Your task to perform on an android device: change timer sound Image 0: 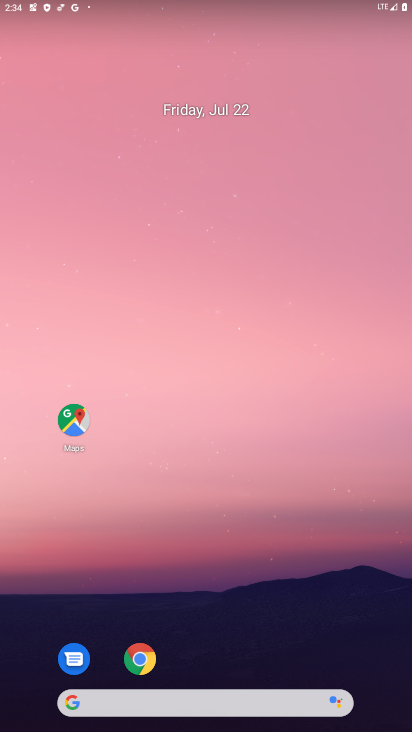
Step 0: drag from (180, 440) to (122, 121)
Your task to perform on an android device: change timer sound Image 1: 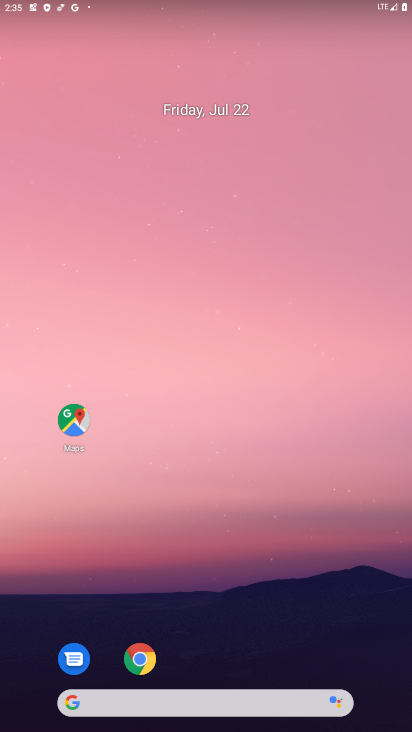
Step 1: drag from (209, 535) to (182, 79)
Your task to perform on an android device: change timer sound Image 2: 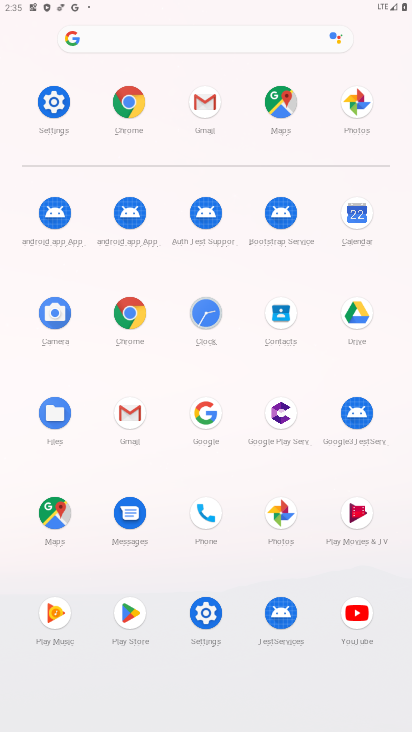
Step 2: click (198, 311)
Your task to perform on an android device: change timer sound Image 3: 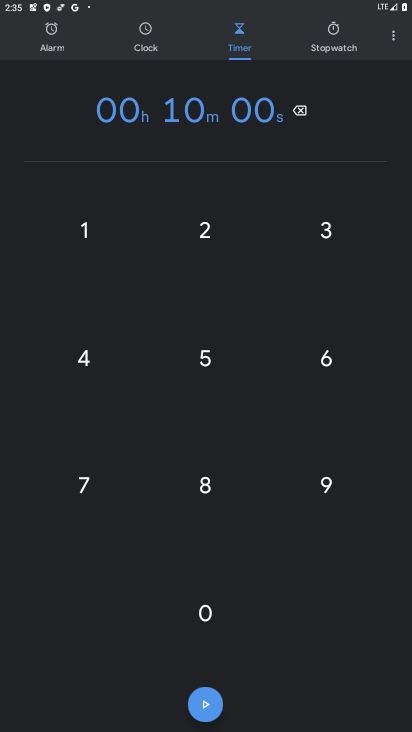
Step 3: click (400, 31)
Your task to perform on an android device: change timer sound Image 4: 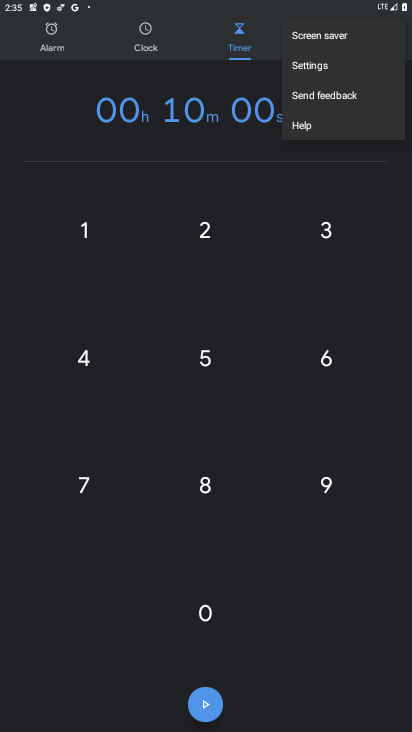
Step 4: click (309, 72)
Your task to perform on an android device: change timer sound Image 5: 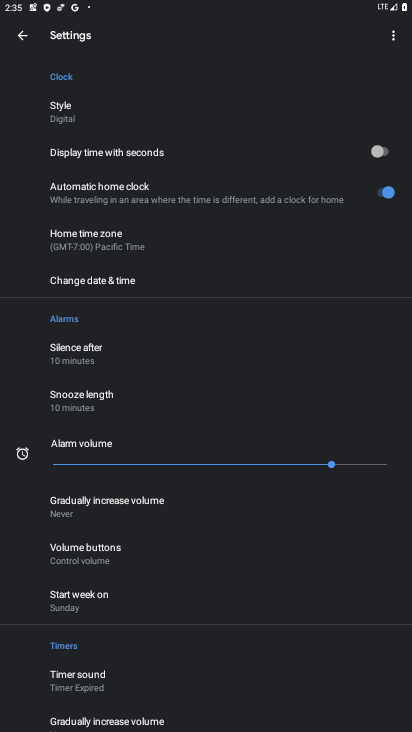
Step 5: drag from (92, 323) to (110, 456)
Your task to perform on an android device: change timer sound Image 6: 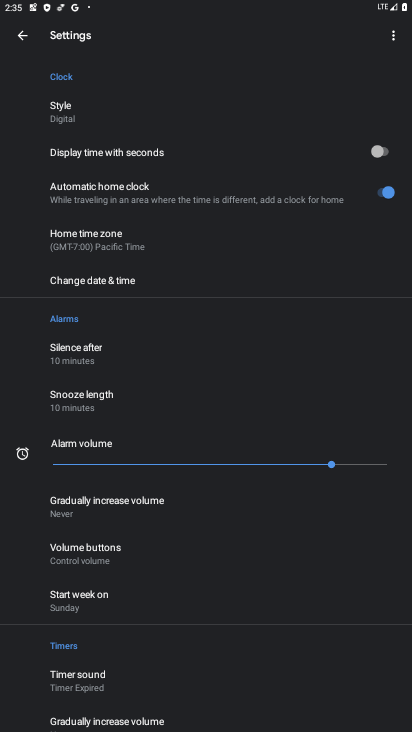
Step 6: click (72, 688)
Your task to perform on an android device: change timer sound Image 7: 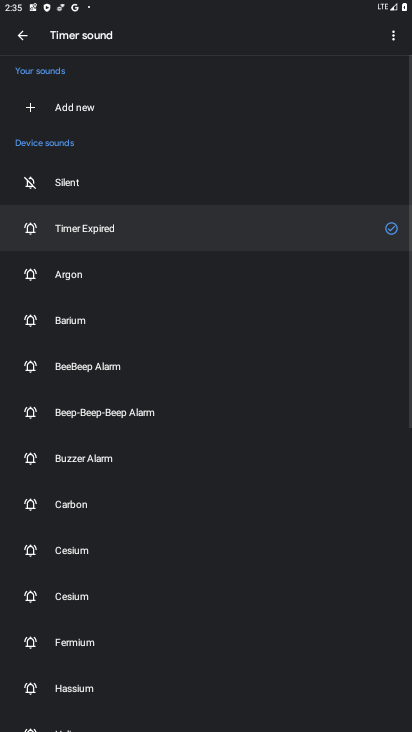
Step 7: click (46, 280)
Your task to perform on an android device: change timer sound Image 8: 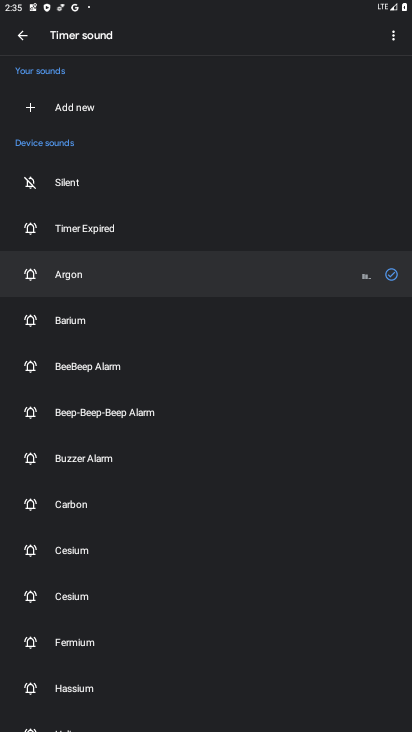
Step 8: task complete